Your task to perform on an android device: open a bookmark in the chrome app Image 0: 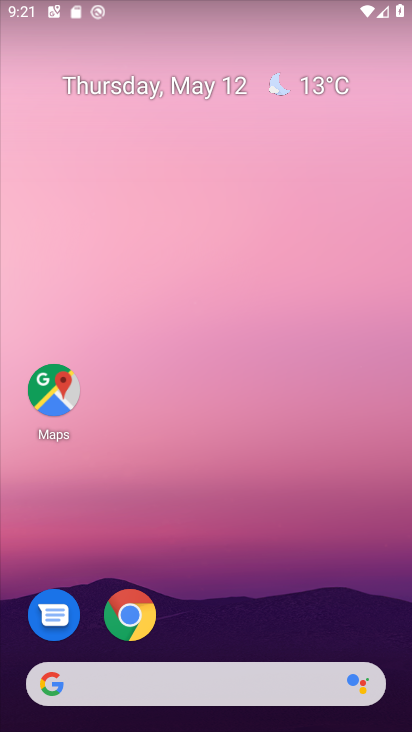
Step 0: click (132, 610)
Your task to perform on an android device: open a bookmark in the chrome app Image 1: 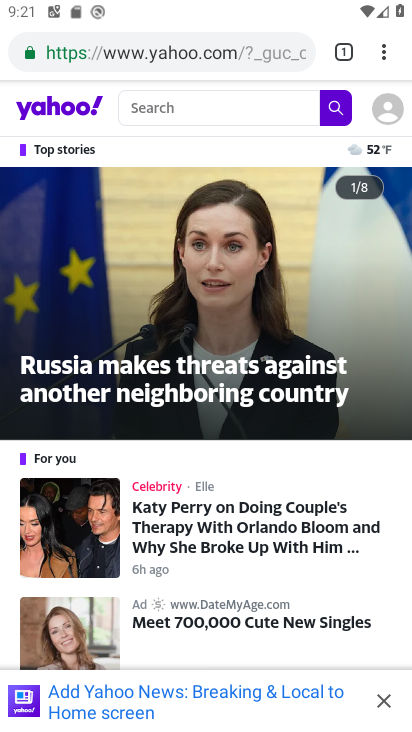
Step 1: click (383, 55)
Your task to perform on an android device: open a bookmark in the chrome app Image 2: 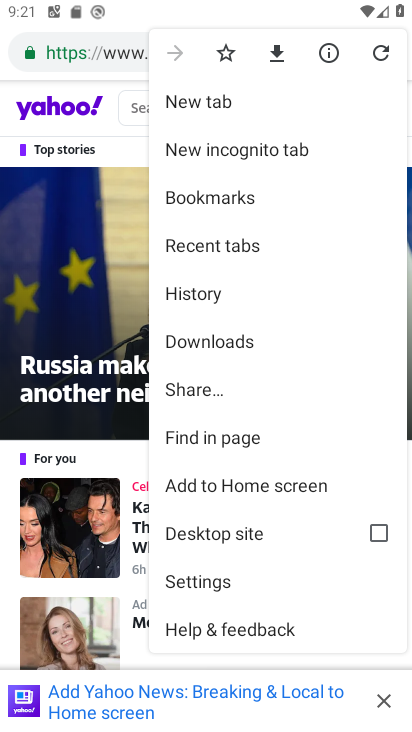
Step 2: click (208, 210)
Your task to perform on an android device: open a bookmark in the chrome app Image 3: 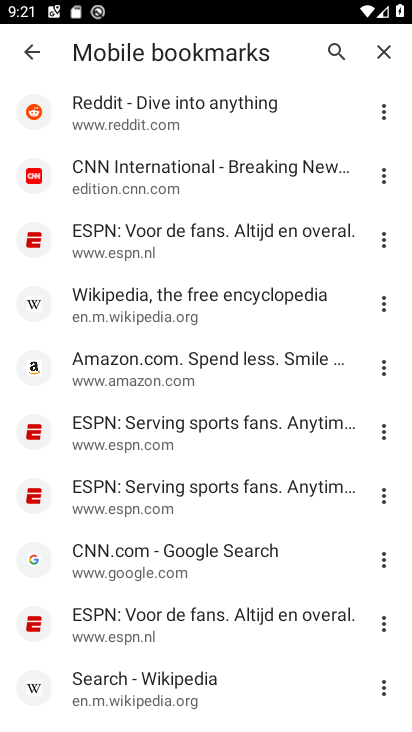
Step 3: task complete